Your task to perform on an android device: Search for 3d printer on AliExpress Image 0: 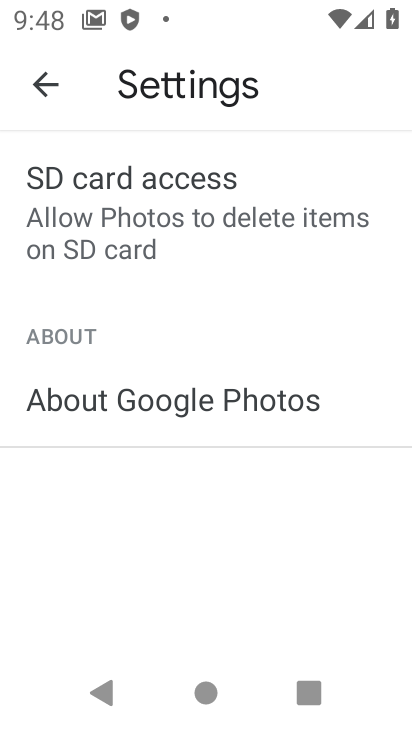
Step 0: press home button
Your task to perform on an android device: Search for 3d printer on AliExpress Image 1: 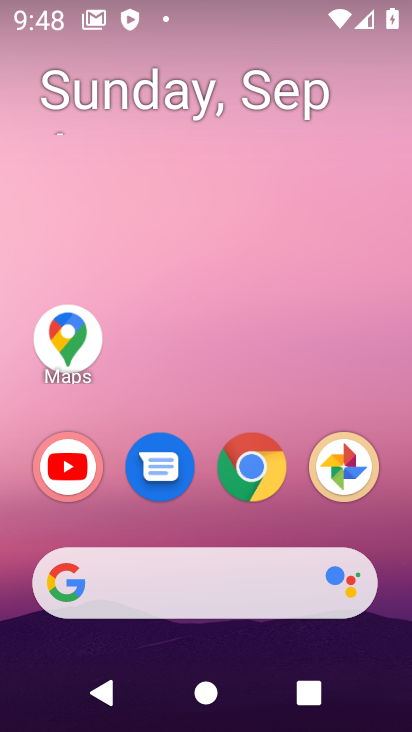
Step 1: click (266, 467)
Your task to perform on an android device: Search for 3d printer on AliExpress Image 2: 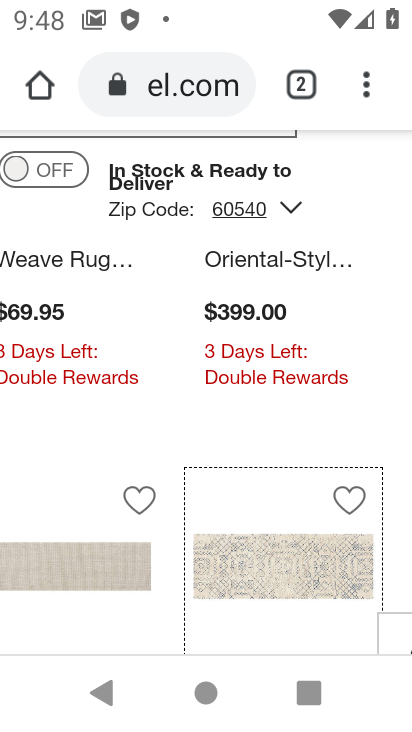
Step 2: click (185, 82)
Your task to perform on an android device: Search for 3d printer on AliExpress Image 3: 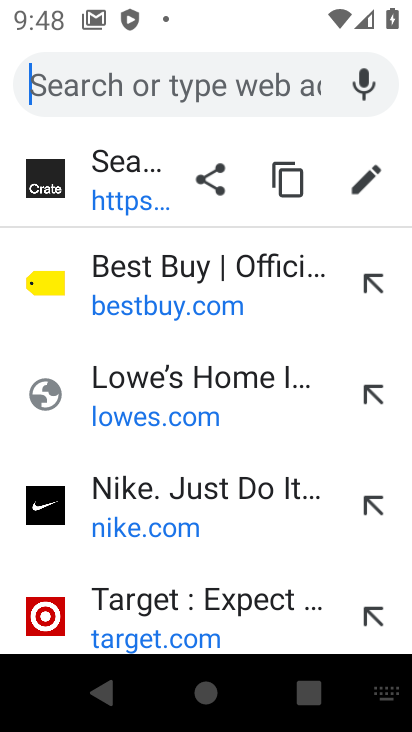
Step 3: type "aliexpress"
Your task to perform on an android device: Search for 3d printer on AliExpress Image 4: 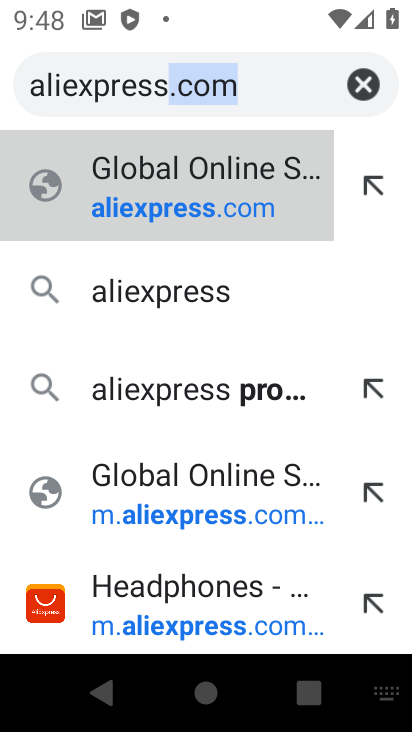
Step 4: click (144, 211)
Your task to perform on an android device: Search for 3d printer on AliExpress Image 5: 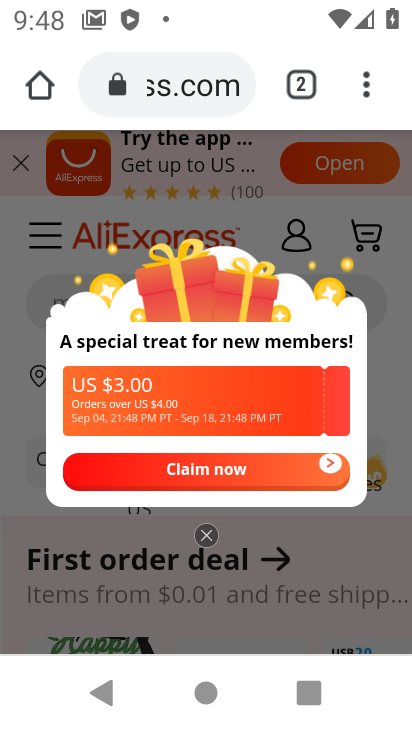
Step 5: click (209, 534)
Your task to perform on an android device: Search for 3d printer on AliExpress Image 6: 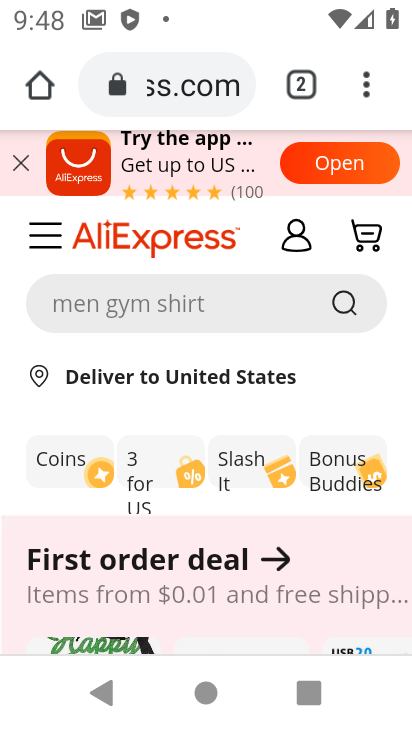
Step 6: click (132, 299)
Your task to perform on an android device: Search for 3d printer on AliExpress Image 7: 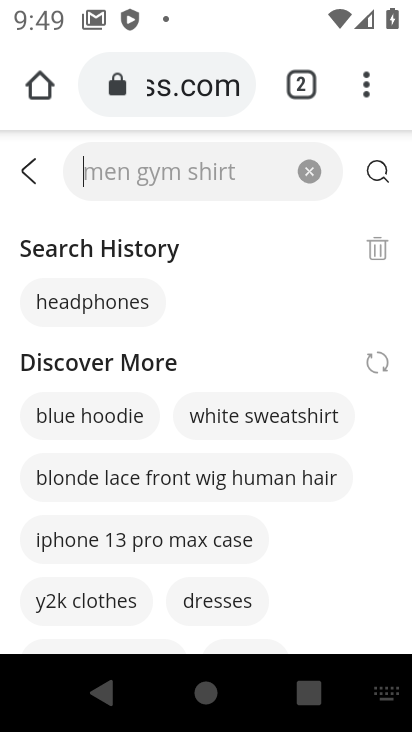
Step 7: type "3d printer"
Your task to perform on an android device: Search for 3d printer on AliExpress Image 8: 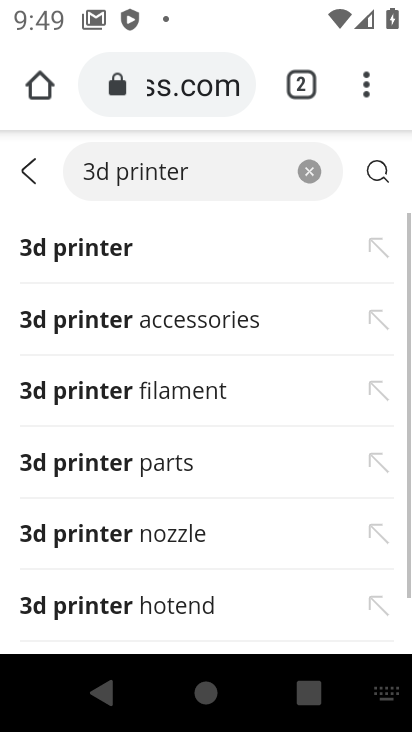
Step 8: click (62, 250)
Your task to perform on an android device: Search for 3d printer on AliExpress Image 9: 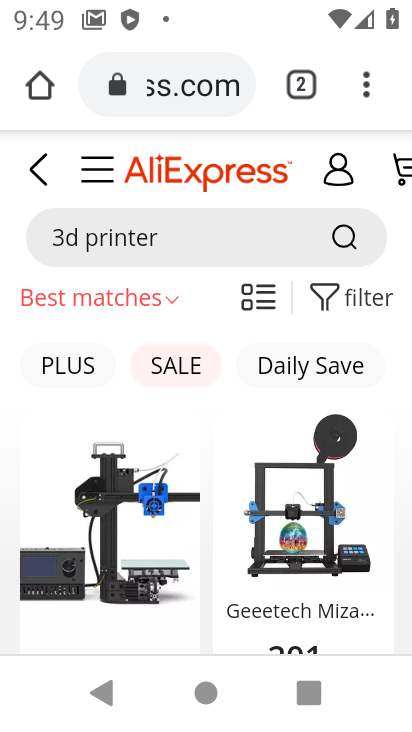
Step 9: drag from (388, 524) to (382, 313)
Your task to perform on an android device: Search for 3d printer on AliExpress Image 10: 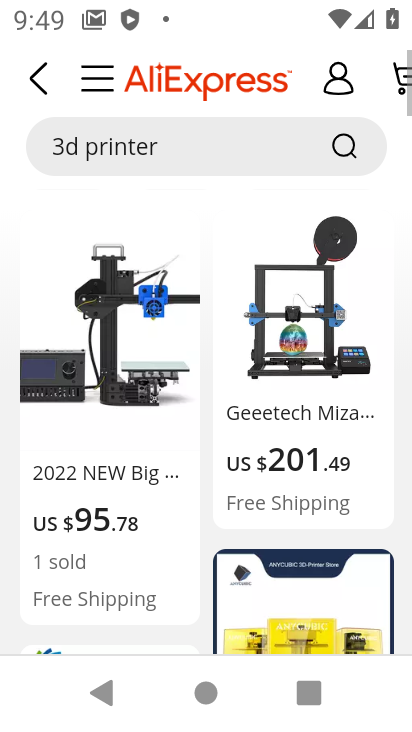
Step 10: drag from (361, 441) to (364, 218)
Your task to perform on an android device: Search for 3d printer on AliExpress Image 11: 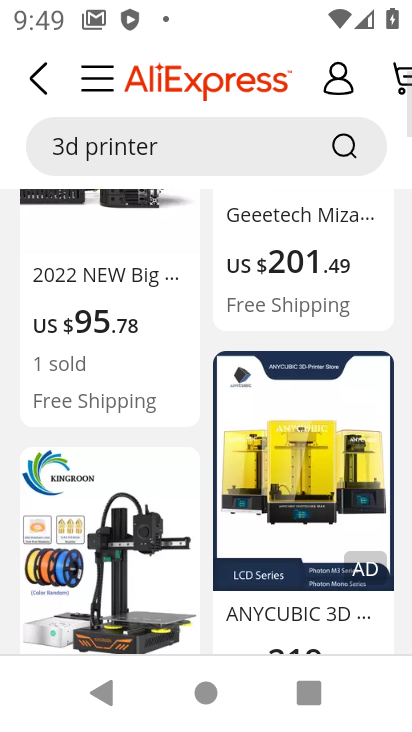
Step 11: drag from (279, 550) to (320, 264)
Your task to perform on an android device: Search for 3d printer on AliExpress Image 12: 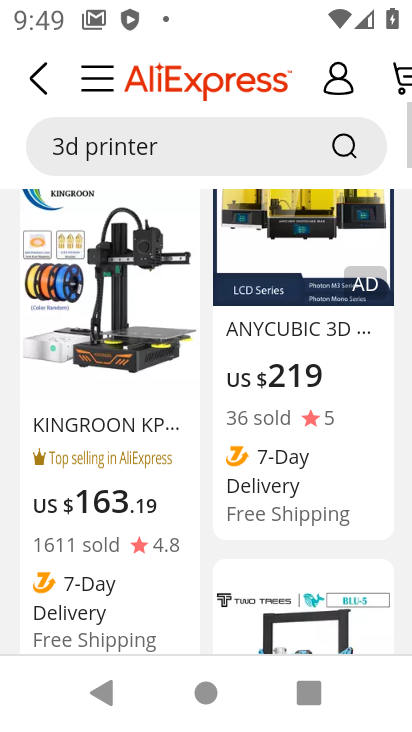
Step 12: drag from (340, 406) to (337, 224)
Your task to perform on an android device: Search for 3d printer on AliExpress Image 13: 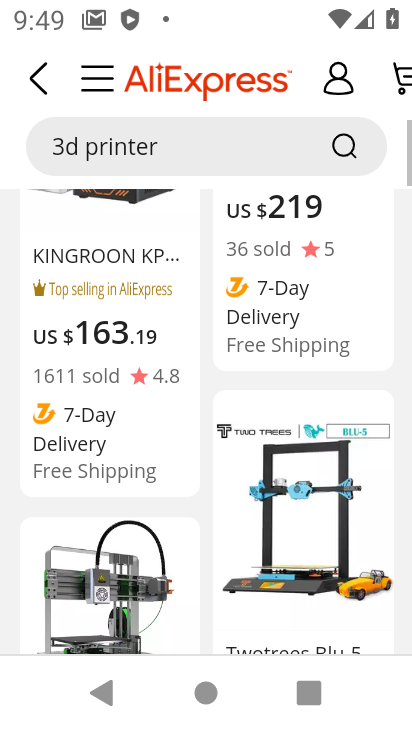
Step 13: drag from (201, 481) to (261, 196)
Your task to perform on an android device: Search for 3d printer on AliExpress Image 14: 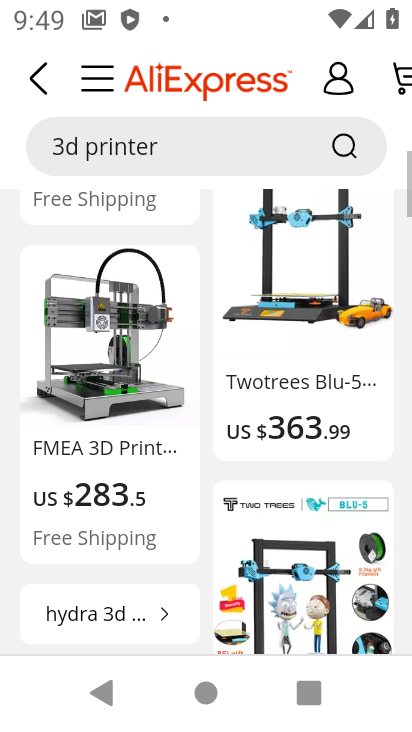
Step 14: drag from (347, 417) to (403, 180)
Your task to perform on an android device: Search for 3d printer on AliExpress Image 15: 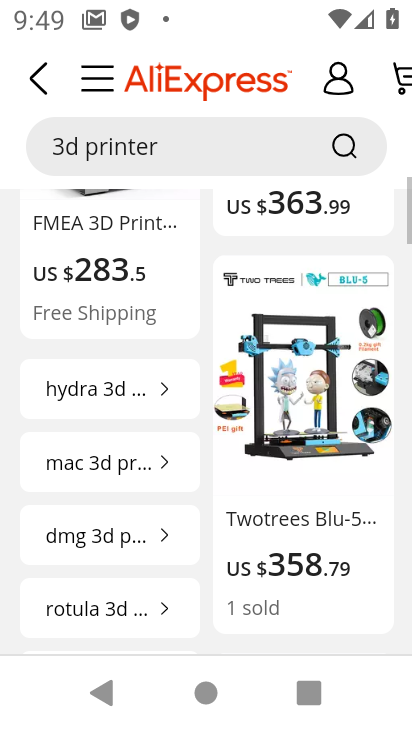
Step 15: drag from (278, 438) to (326, 272)
Your task to perform on an android device: Search for 3d printer on AliExpress Image 16: 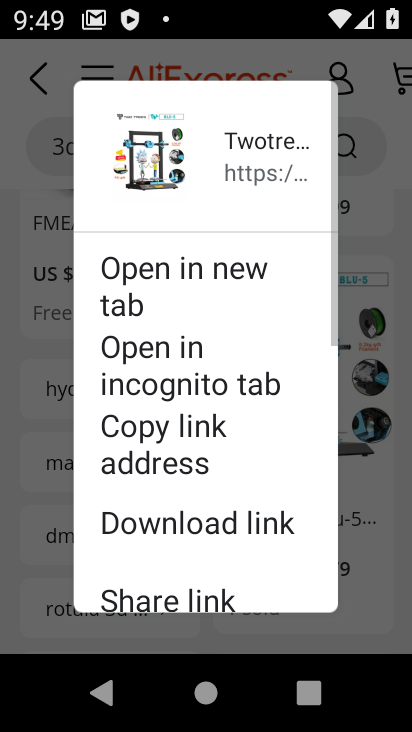
Step 16: click (404, 549)
Your task to perform on an android device: Search for 3d printer on AliExpress Image 17: 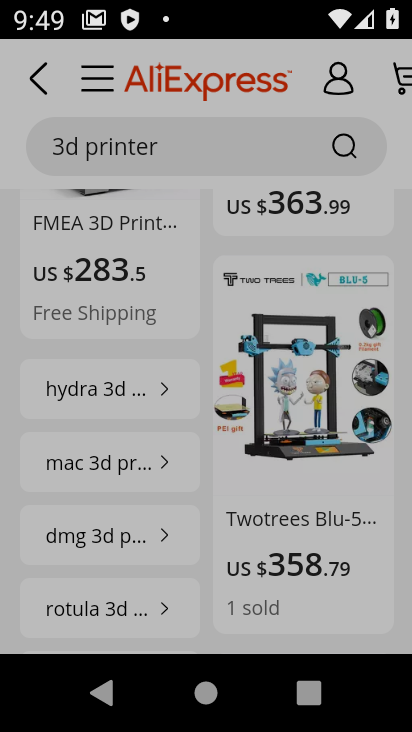
Step 17: drag from (390, 590) to (345, 166)
Your task to perform on an android device: Search for 3d printer on AliExpress Image 18: 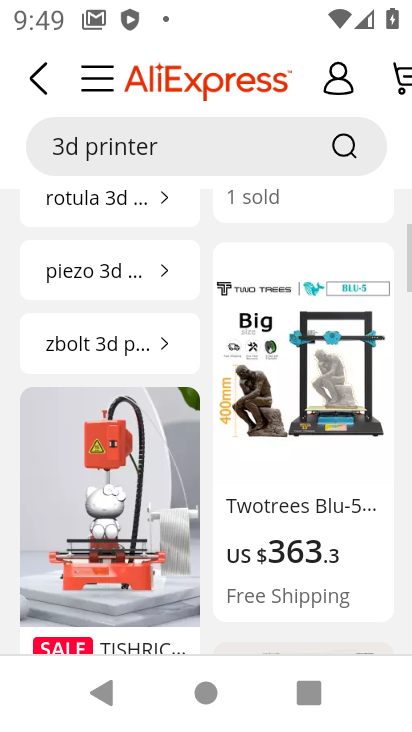
Step 18: drag from (318, 448) to (309, 265)
Your task to perform on an android device: Search for 3d printer on AliExpress Image 19: 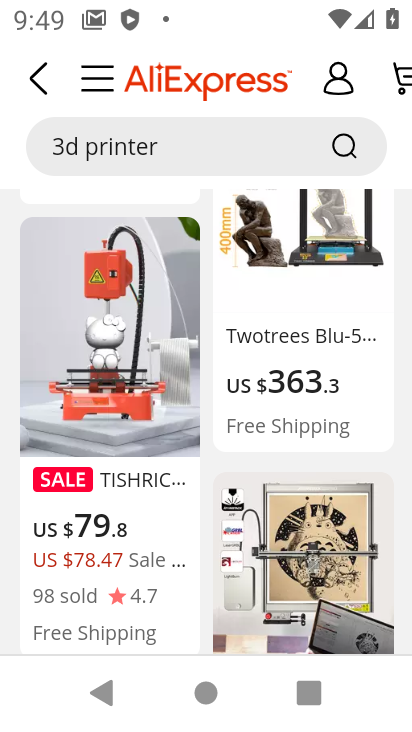
Step 19: drag from (240, 644) to (248, 358)
Your task to perform on an android device: Search for 3d printer on AliExpress Image 20: 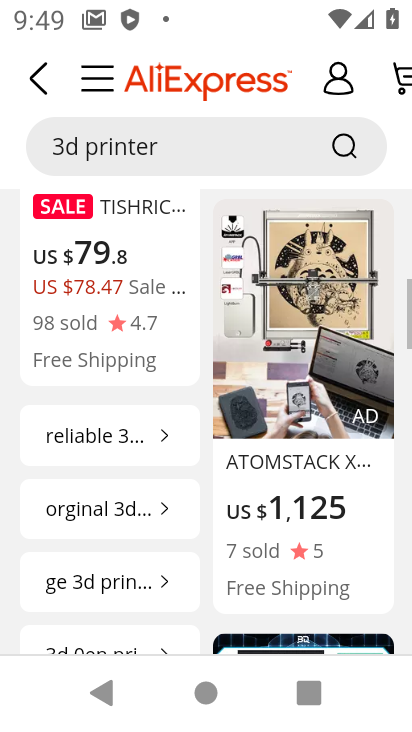
Step 20: drag from (172, 605) to (232, 275)
Your task to perform on an android device: Search for 3d printer on AliExpress Image 21: 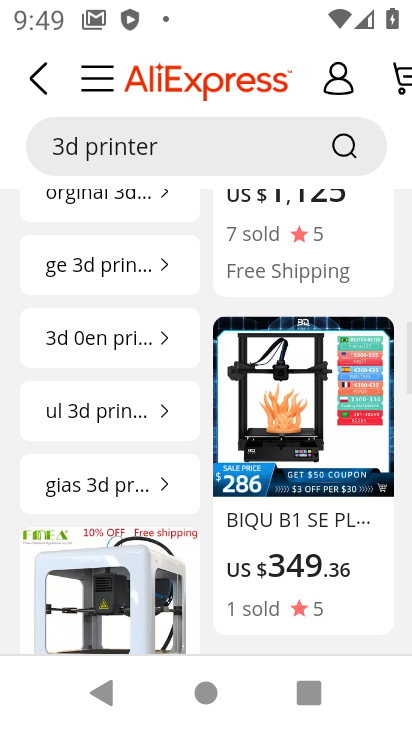
Step 21: click (363, 345)
Your task to perform on an android device: Search for 3d printer on AliExpress Image 22: 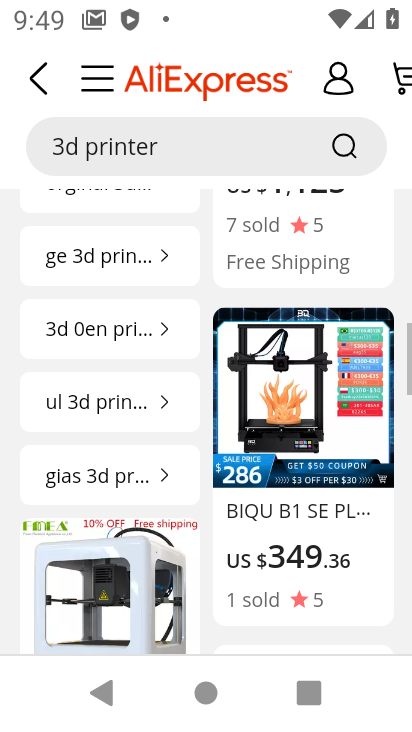
Step 22: drag from (353, 611) to (363, 307)
Your task to perform on an android device: Search for 3d printer on AliExpress Image 23: 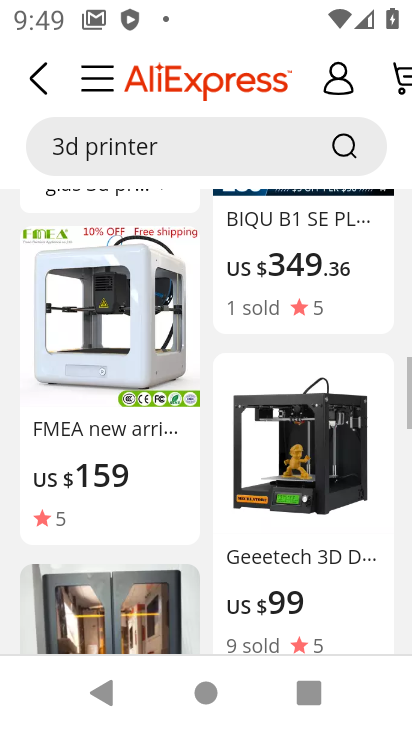
Step 23: drag from (335, 552) to (364, 270)
Your task to perform on an android device: Search for 3d printer on AliExpress Image 24: 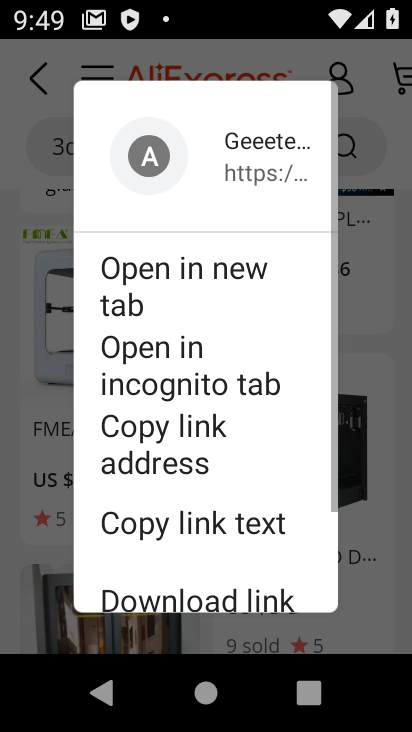
Step 24: click (376, 333)
Your task to perform on an android device: Search for 3d printer on AliExpress Image 25: 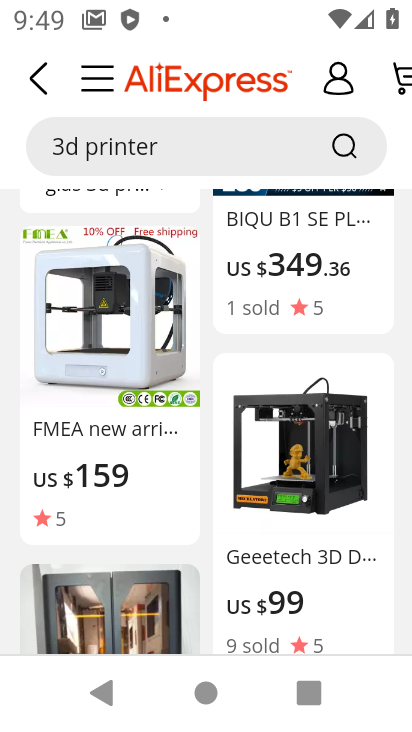
Step 25: drag from (399, 494) to (362, 271)
Your task to perform on an android device: Search for 3d printer on AliExpress Image 26: 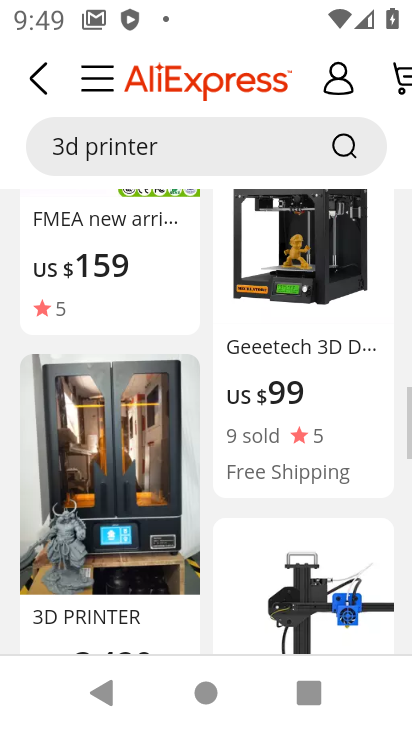
Step 26: drag from (340, 397) to (355, 303)
Your task to perform on an android device: Search for 3d printer on AliExpress Image 27: 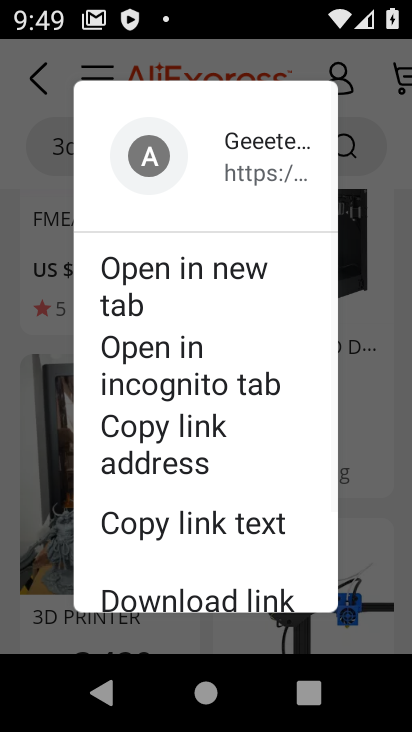
Step 27: click (388, 498)
Your task to perform on an android device: Search for 3d printer on AliExpress Image 28: 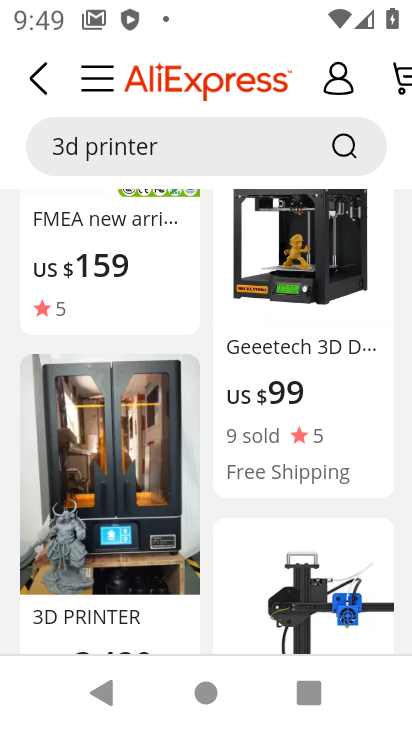
Step 28: task complete